Your task to perform on an android device: Search for "amazon basics triple a" on walmart.com, select the first entry, add it to the cart, then select checkout. Image 0: 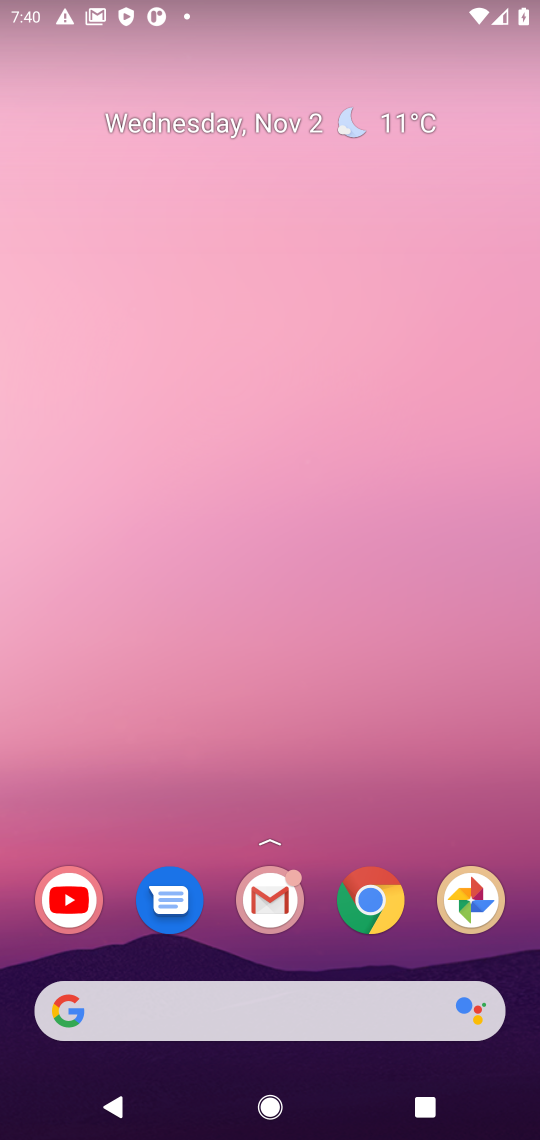
Step 0: click (258, 999)
Your task to perform on an android device: Search for "amazon basics triple a" on walmart.com, select the first entry, add it to the cart, then select checkout. Image 1: 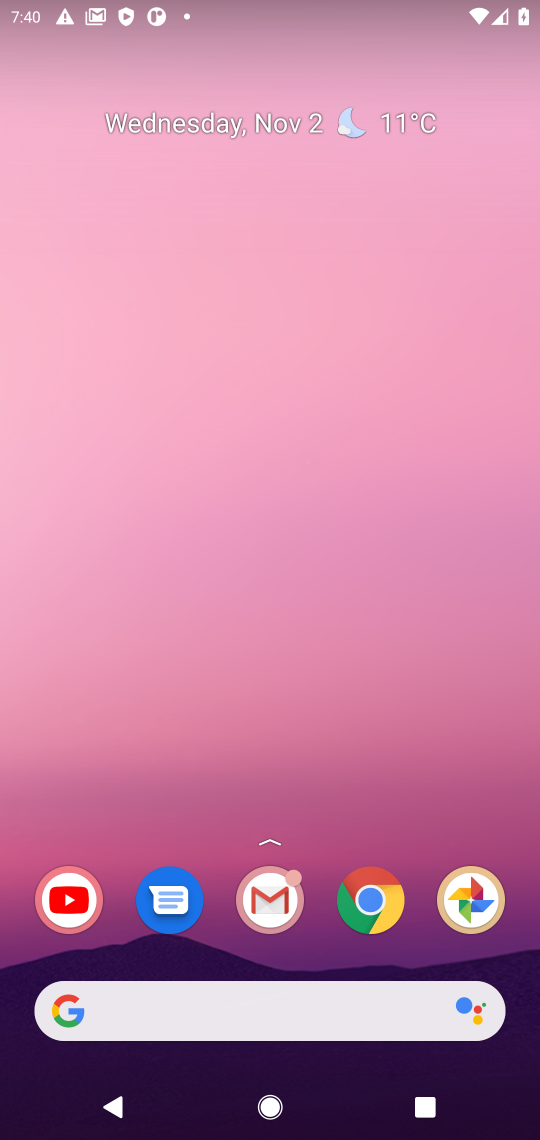
Step 1: click (258, 999)
Your task to perform on an android device: Search for "amazon basics triple a" on walmart.com, select the first entry, add it to the cart, then select checkout. Image 2: 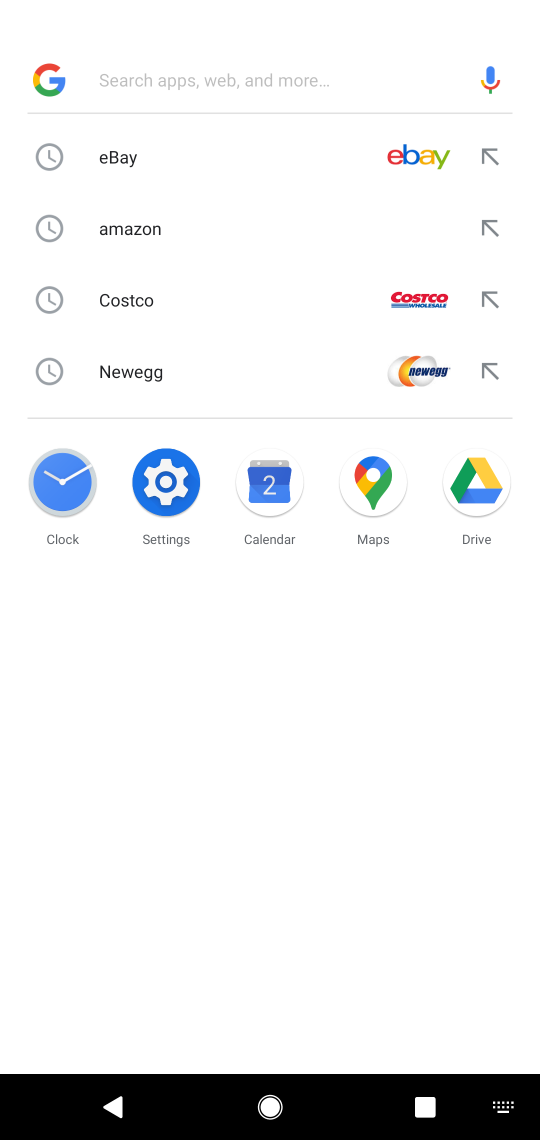
Step 2: type "walmart"
Your task to perform on an android device: Search for "amazon basics triple a" on walmart.com, select the first entry, add it to the cart, then select checkout. Image 3: 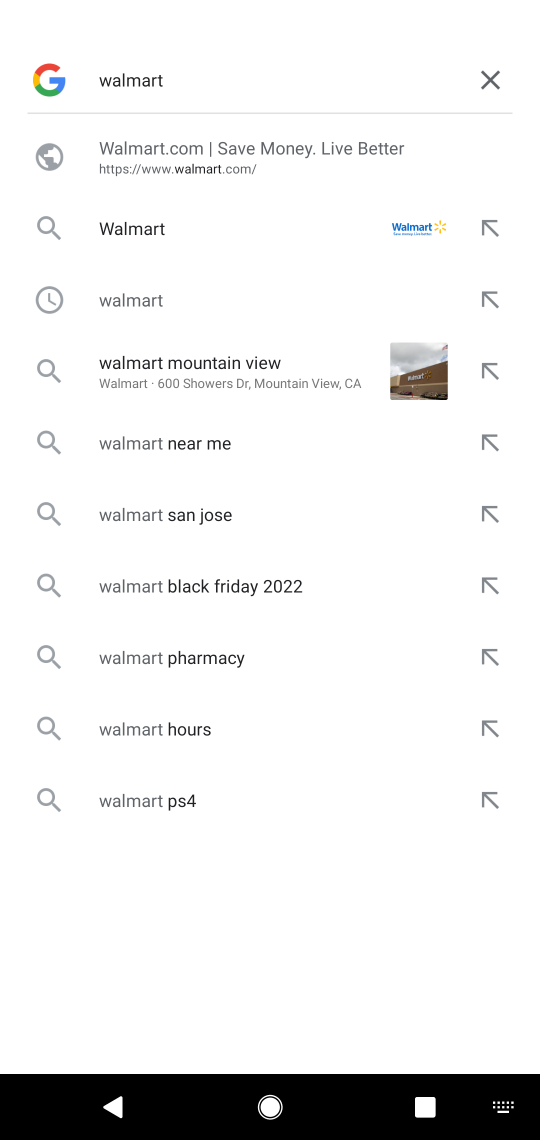
Step 3: click (166, 228)
Your task to perform on an android device: Search for "amazon basics triple a" on walmart.com, select the first entry, add it to the cart, then select checkout. Image 4: 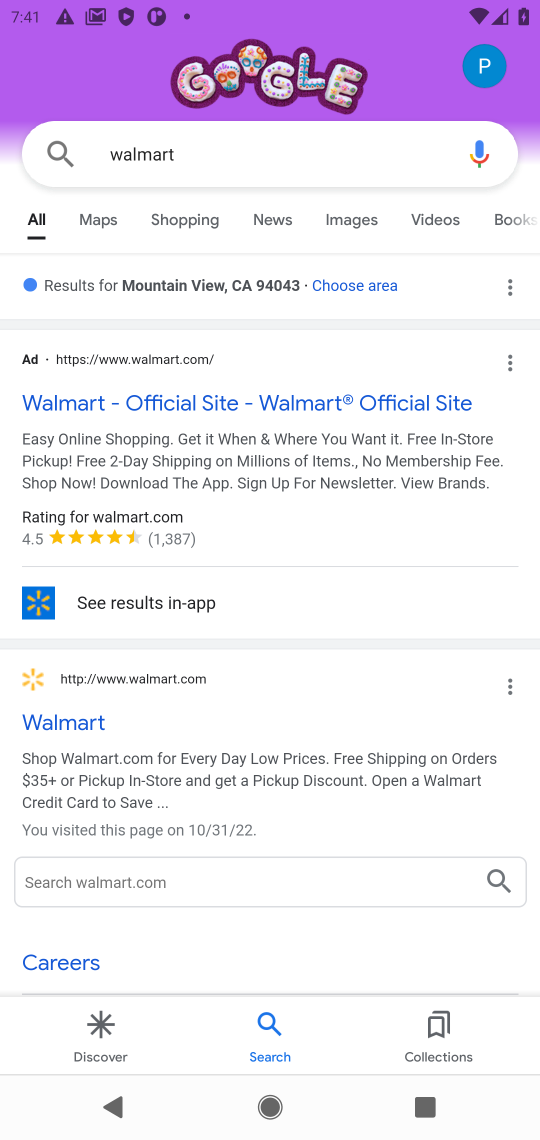
Step 4: click (68, 719)
Your task to perform on an android device: Search for "amazon basics triple a" on walmart.com, select the first entry, add it to the cart, then select checkout. Image 5: 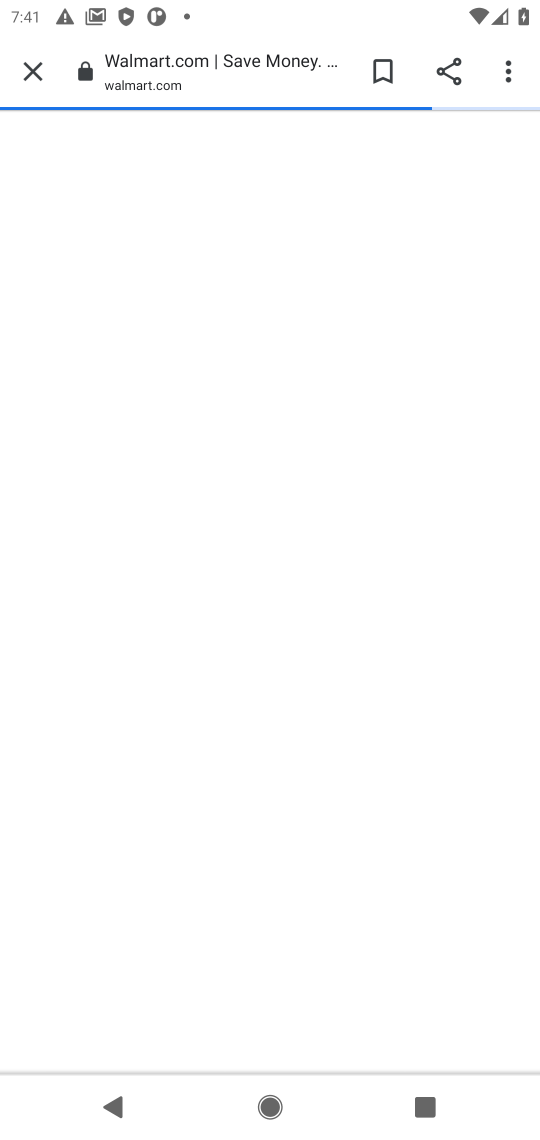
Step 5: click (257, 317)
Your task to perform on an android device: Search for "amazon basics triple a" on walmart.com, select the first entry, add it to the cart, then select checkout. Image 6: 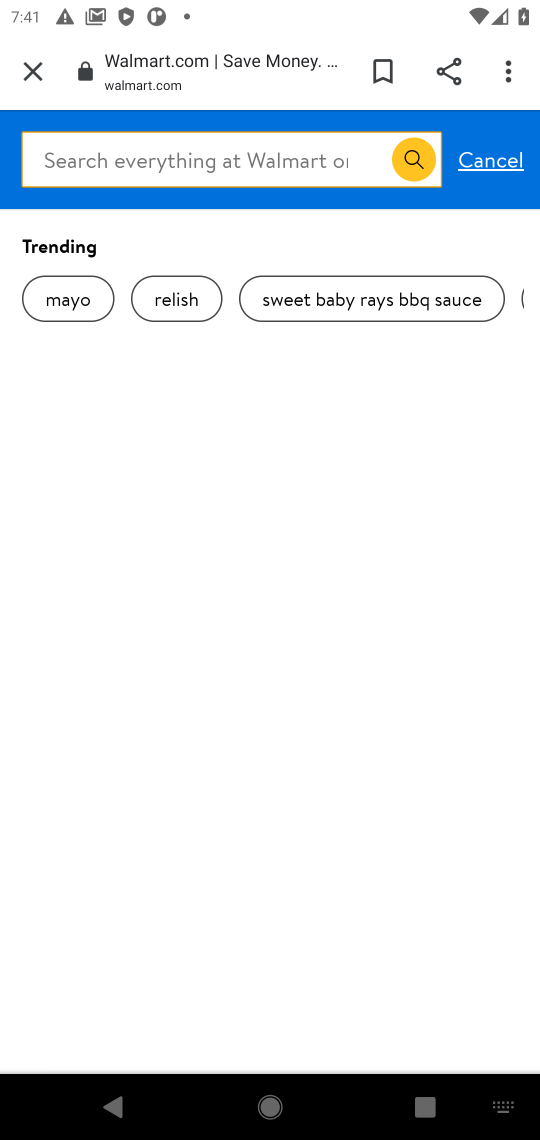
Step 6: type "amazon basics triple a"
Your task to perform on an android device: Search for "amazon basics triple a" on walmart.com, select the first entry, add it to the cart, then select checkout. Image 7: 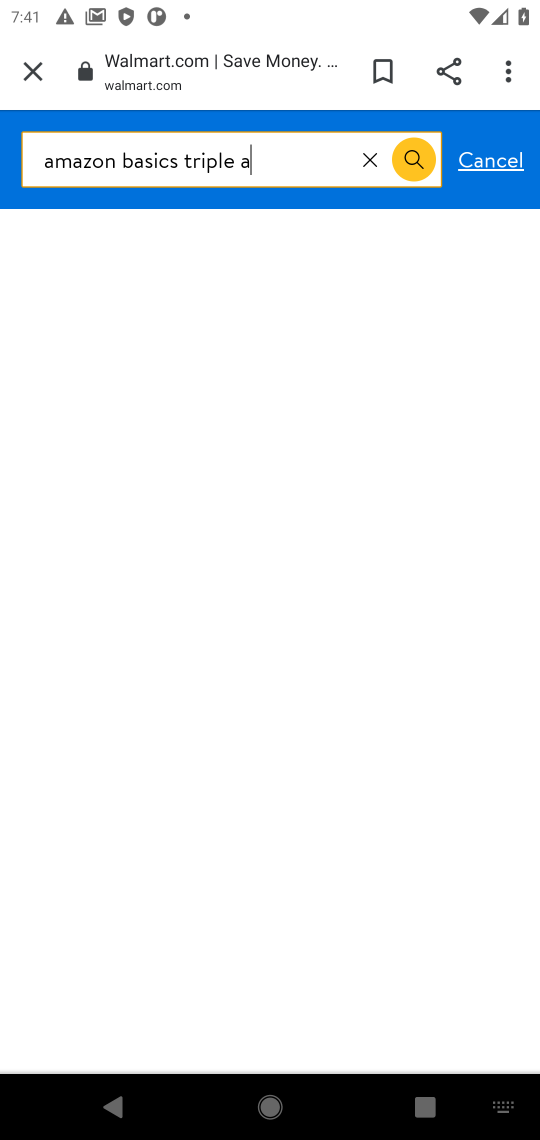
Step 7: click (412, 176)
Your task to perform on an android device: Search for "amazon basics triple a" on walmart.com, select the first entry, add it to the cart, then select checkout. Image 8: 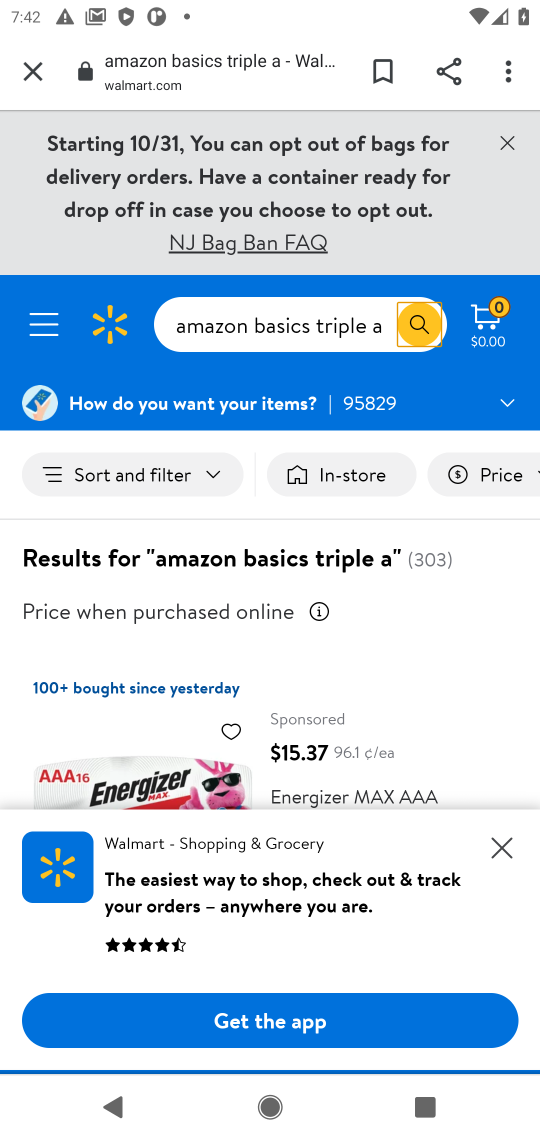
Step 8: click (494, 843)
Your task to perform on an android device: Search for "amazon basics triple a" on walmart.com, select the first entry, add it to the cart, then select checkout. Image 9: 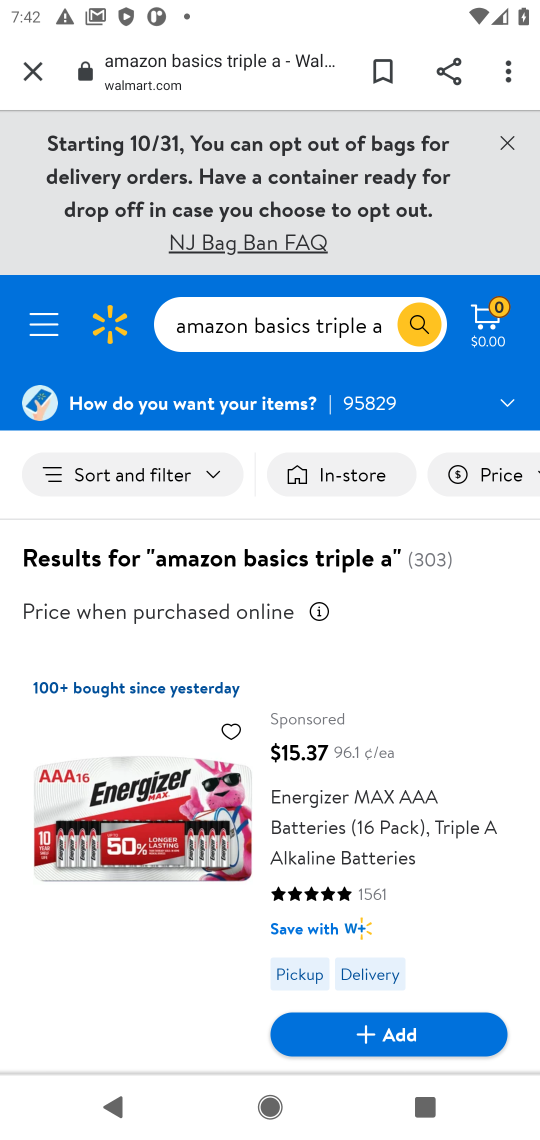
Step 9: drag from (480, 934) to (455, 635)
Your task to perform on an android device: Search for "amazon basics triple a" on walmart.com, select the first entry, add it to the cart, then select checkout. Image 10: 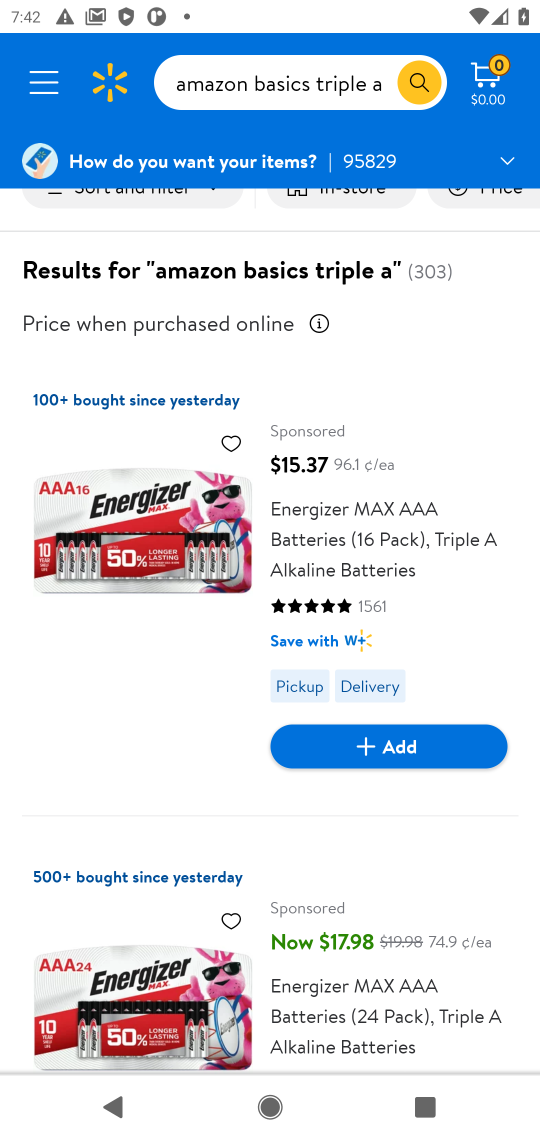
Step 10: click (381, 753)
Your task to perform on an android device: Search for "amazon basics triple a" on walmart.com, select the first entry, add it to the cart, then select checkout. Image 11: 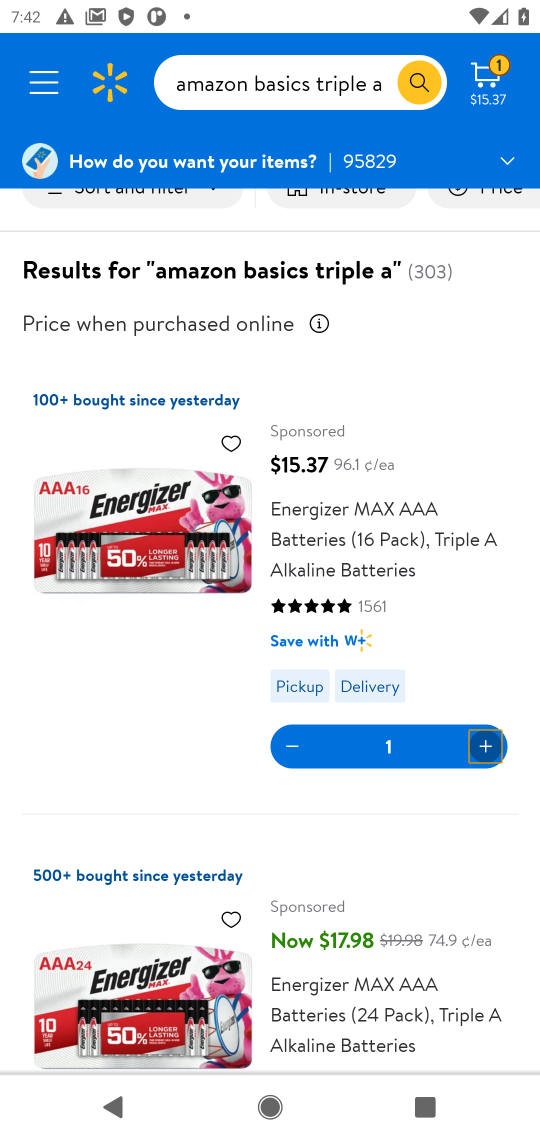
Step 11: click (508, 76)
Your task to perform on an android device: Search for "amazon basics triple a" on walmart.com, select the first entry, add it to the cart, then select checkout. Image 12: 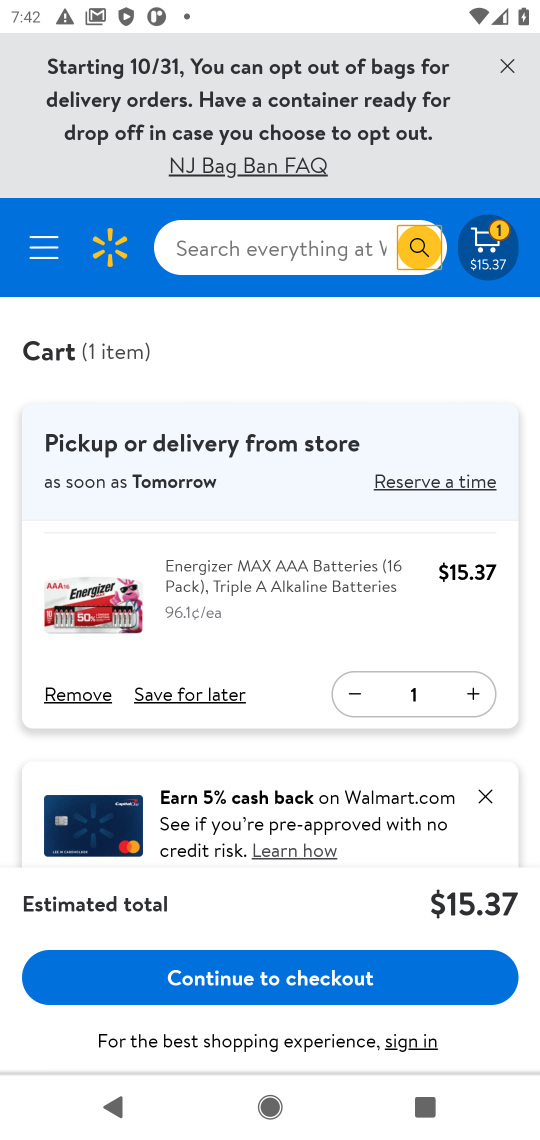
Step 12: click (283, 972)
Your task to perform on an android device: Search for "amazon basics triple a" on walmart.com, select the first entry, add it to the cart, then select checkout. Image 13: 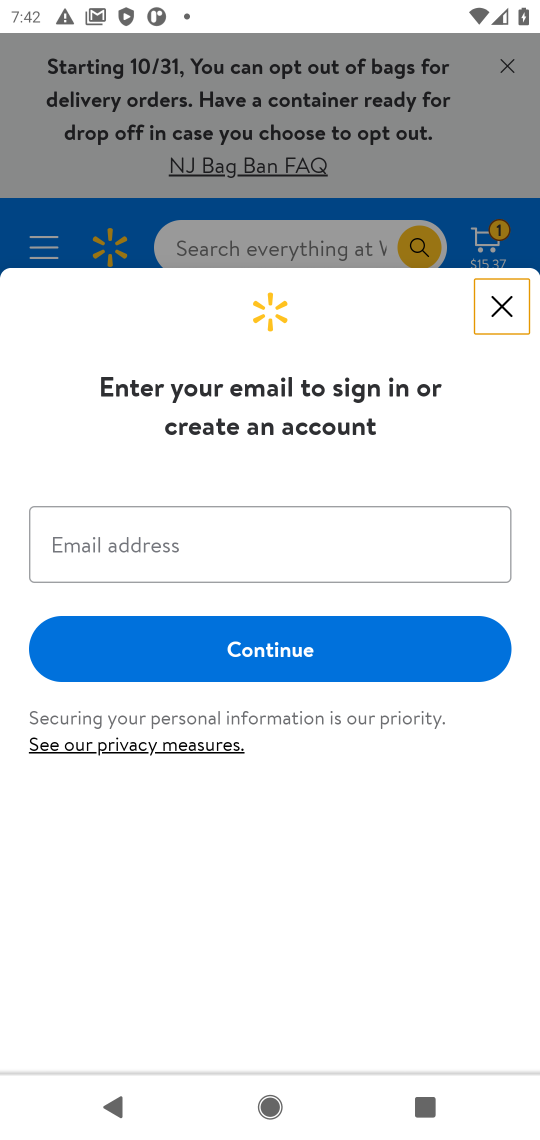
Step 13: task complete